Your task to perform on an android device: Find coffee shops on Maps Image 0: 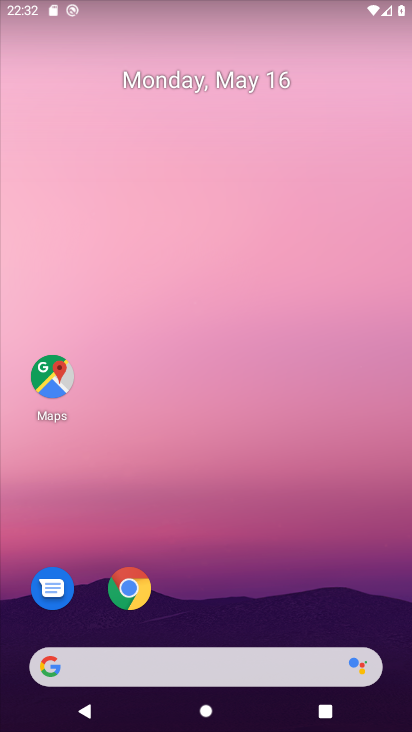
Step 0: press home button
Your task to perform on an android device: Find coffee shops on Maps Image 1: 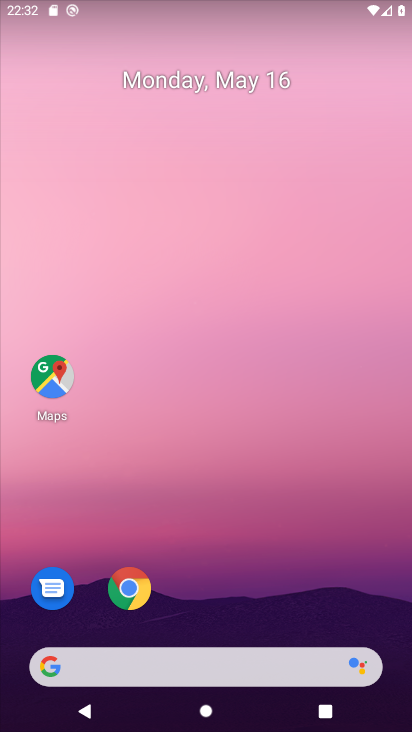
Step 1: click (48, 374)
Your task to perform on an android device: Find coffee shops on Maps Image 2: 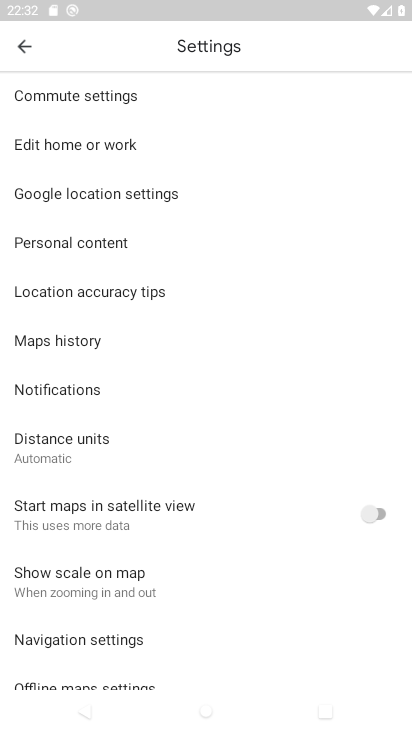
Step 2: click (24, 47)
Your task to perform on an android device: Find coffee shops on Maps Image 3: 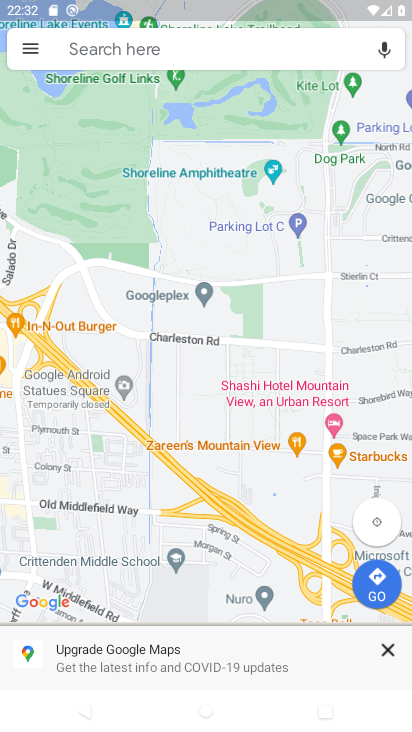
Step 3: click (108, 38)
Your task to perform on an android device: Find coffee shops on Maps Image 4: 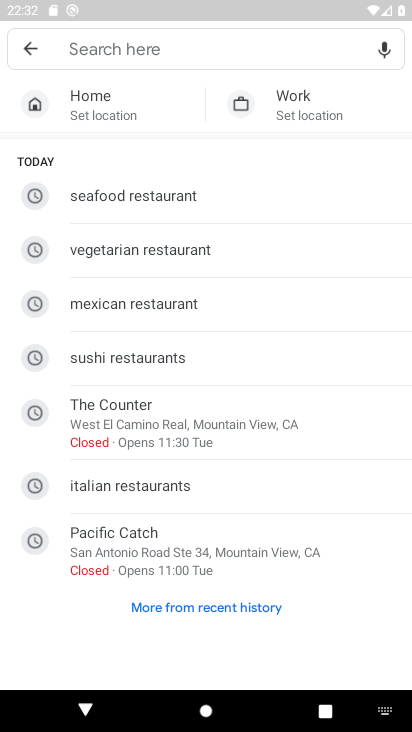
Step 4: type "coffee"
Your task to perform on an android device: Find coffee shops on Maps Image 5: 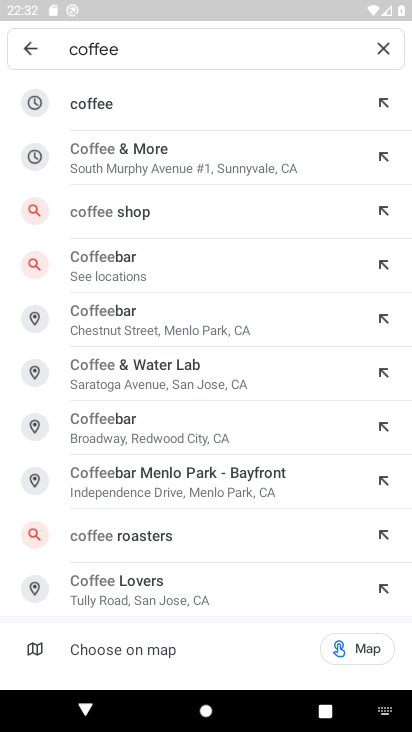
Step 5: click (136, 105)
Your task to perform on an android device: Find coffee shops on Maps Image 6: 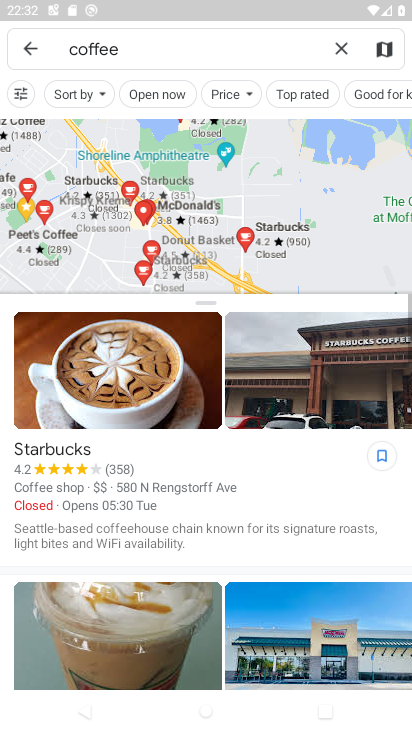
Step 6: task complete